Your task to perform on an android device: Search for the best rated headphones on amazon.com Image 0: 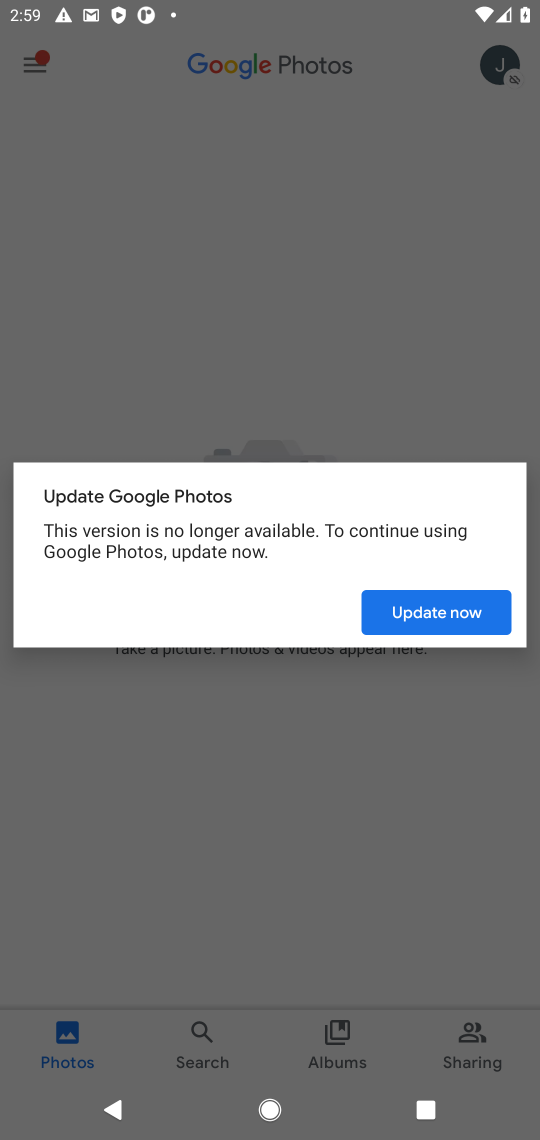
Step 0: press home button
Your task to perform on an android device: Search for the best rated headphones on amazon.com Image 1: 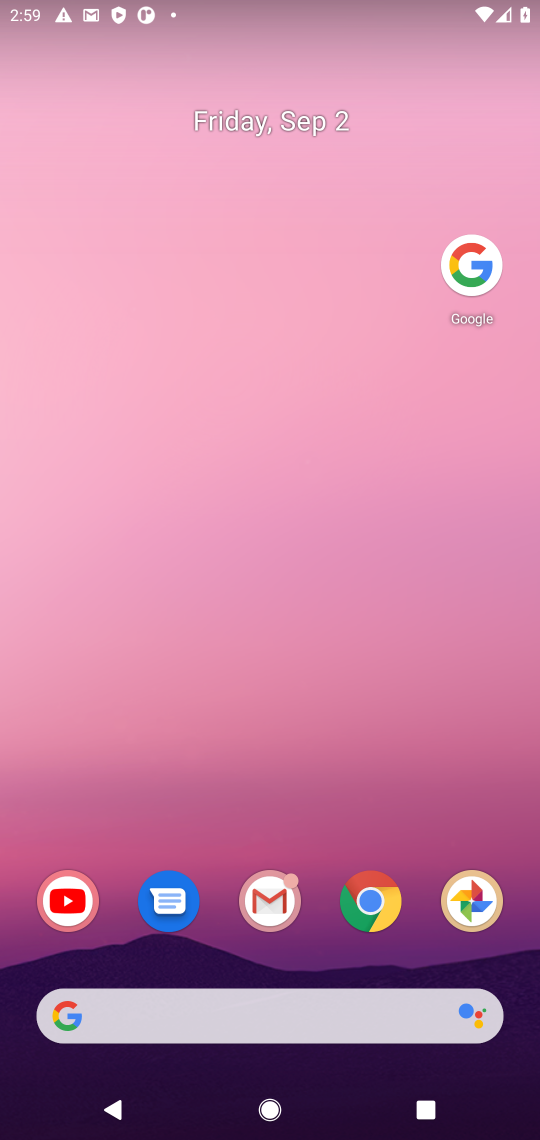
Step 1: drag from (249, 492) to (265, 194)
Your task to perform on an android device: Search for the best rated headphones on amazon.com Image 2: 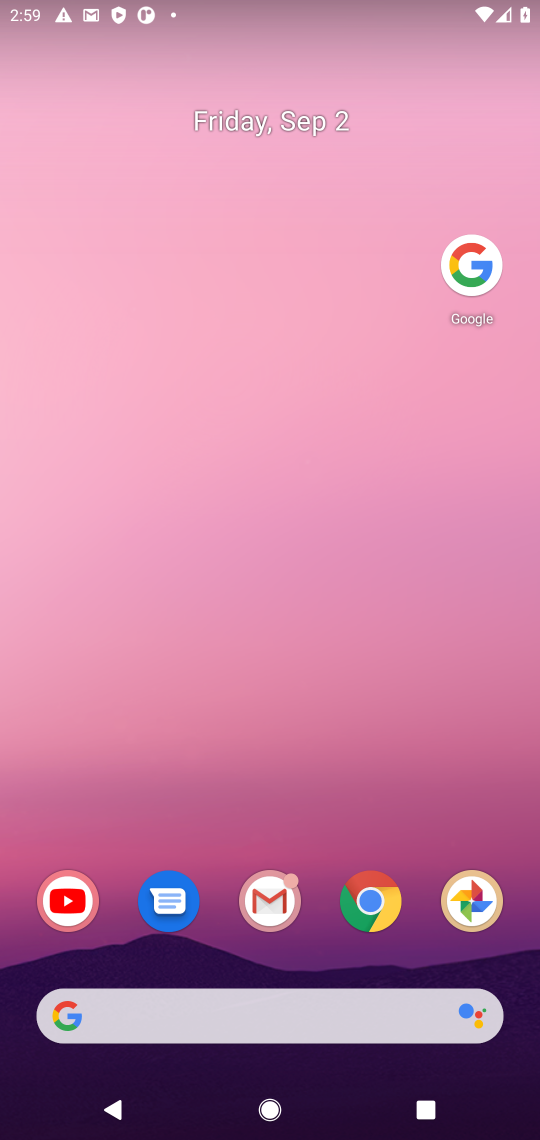
Step 2: drag from (204, 852) to (290, 181)
Your task to perform on an android device: Search for the best rated headphones on amazon.com Image 3: 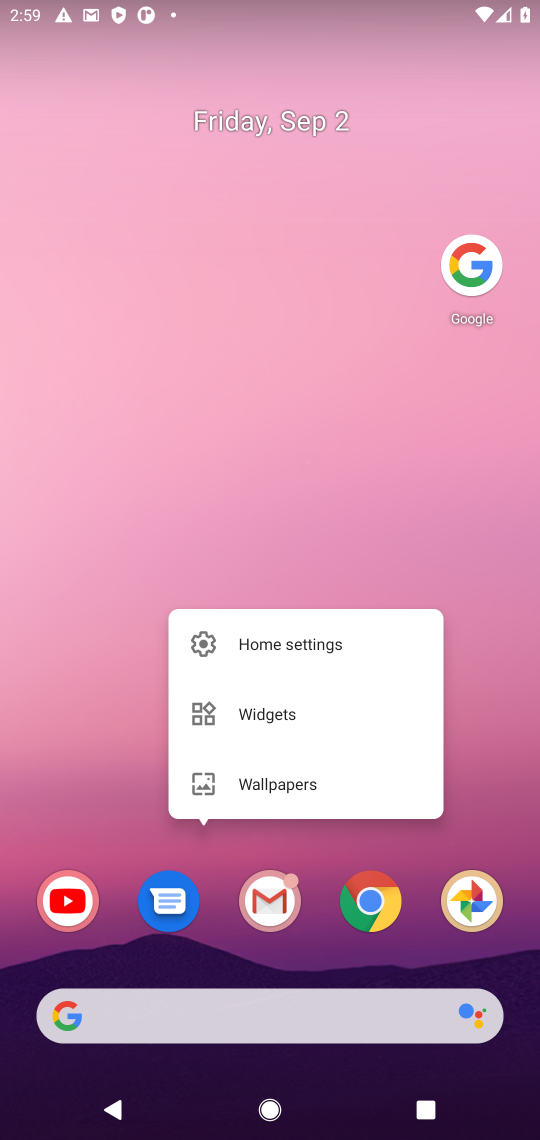
Step 3: click (454, 261)
Your task to perform on an android device: Search for the best rated headphones on amazon.com Image 4: 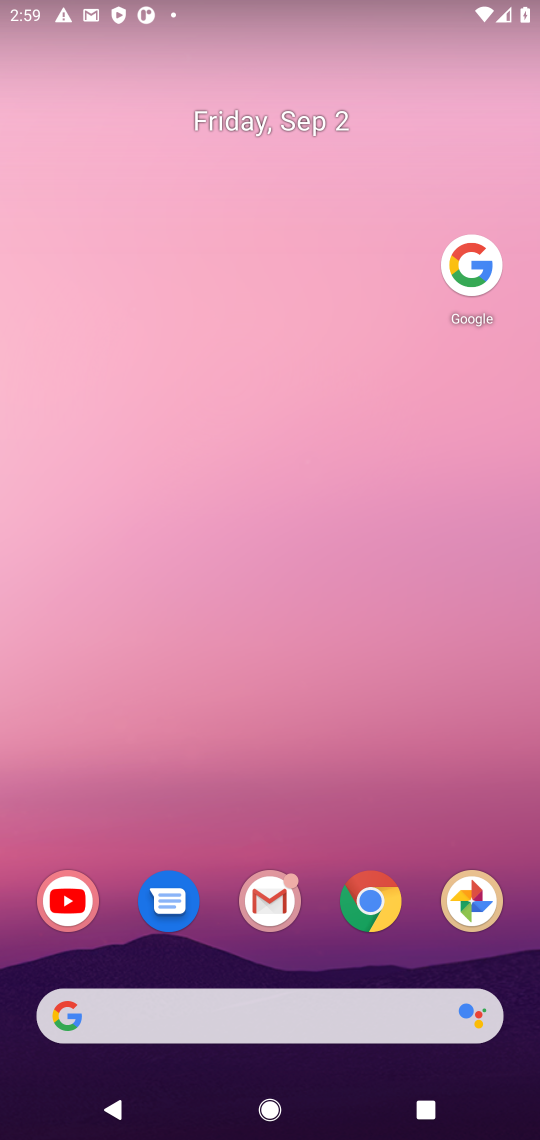
Step 4: click (473, 273)
Your task to perform on an android device: Search for the best rated headphones on amazon.com Image 5: 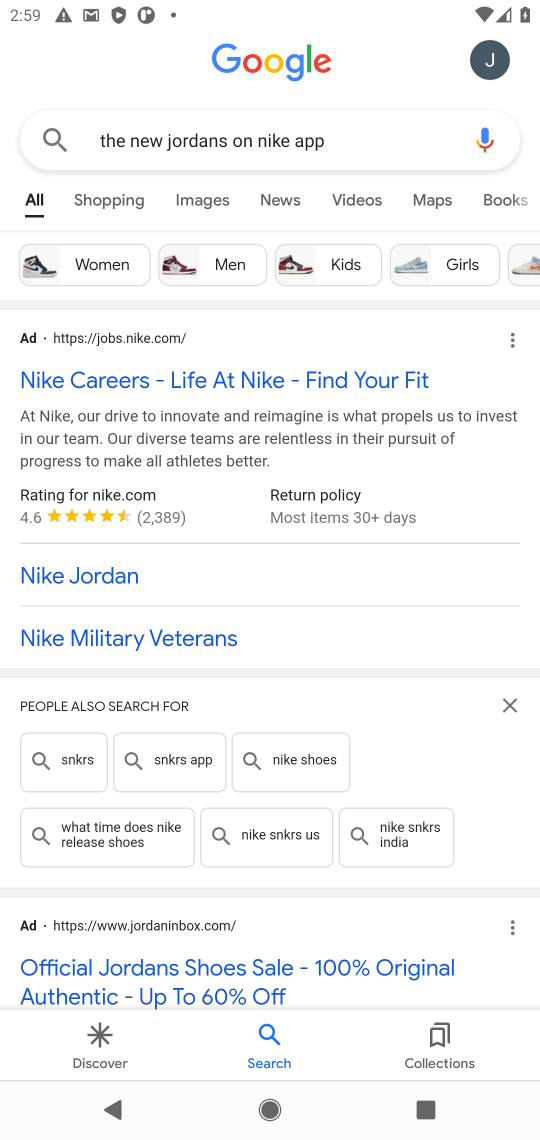
Step 5: click (327, 136)
Your task to perform on an android device: Search for the best rated headphones on amazon.com Image 6: 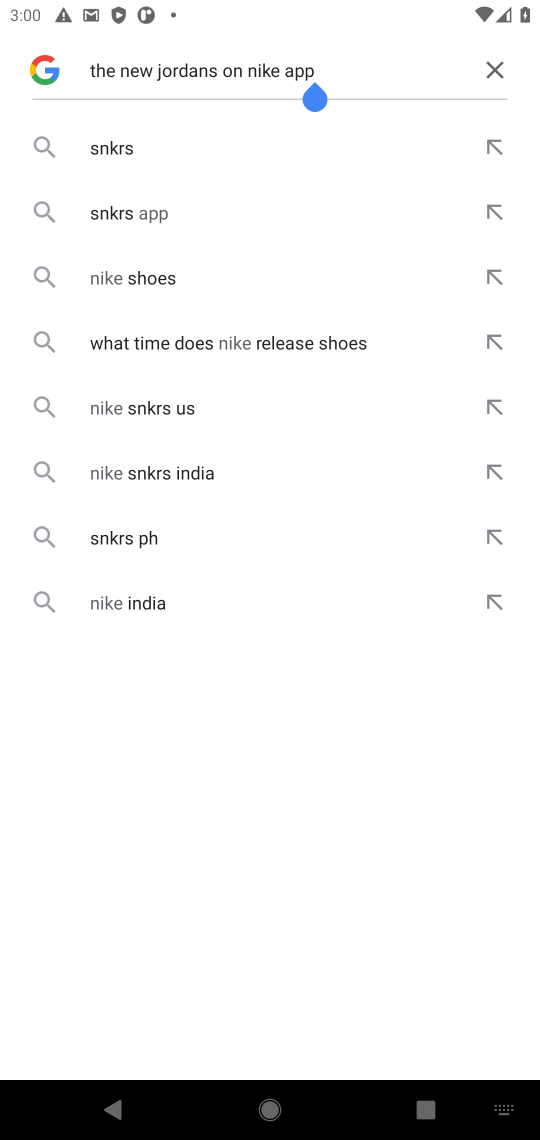
Step 6: click (489, 65)
Your task to perform on an android device: Search for the best rated headphones on amazon.com Image 7: 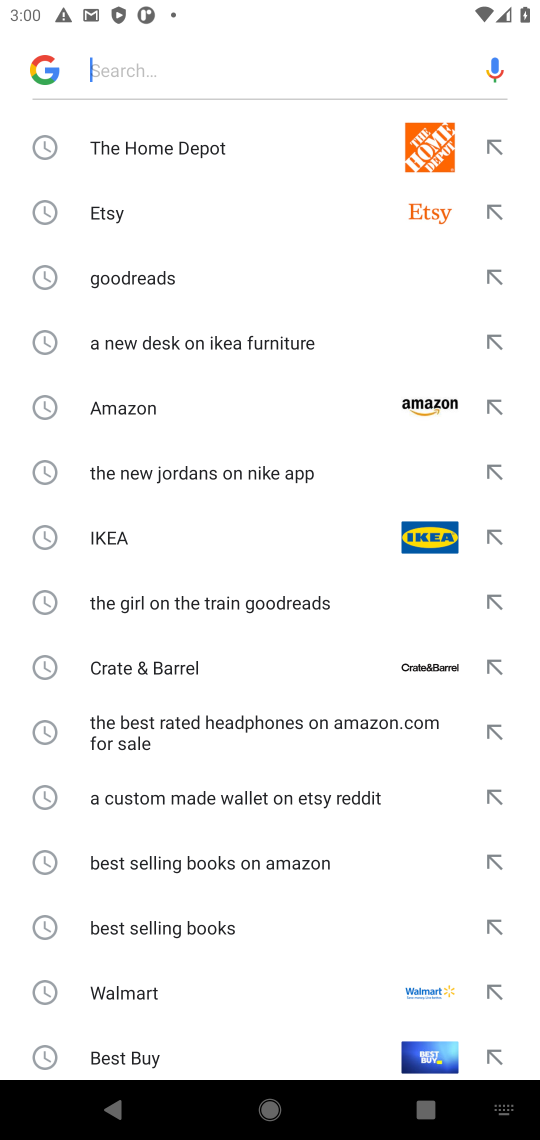
Step 7: click (175, 59)
Your task to perform on an android device: Search for the best rated headphones on amazon.com Image 8: 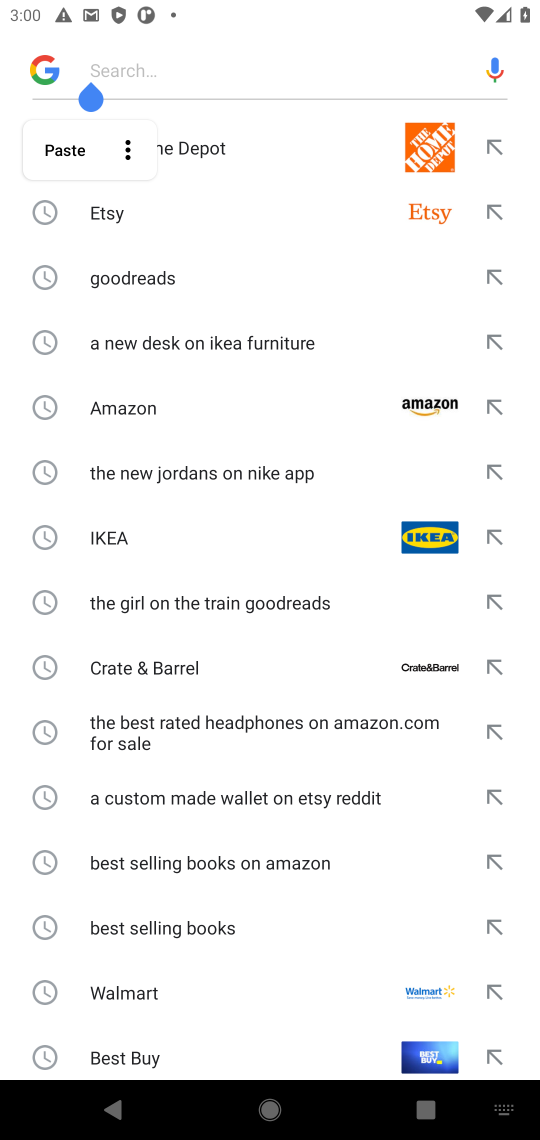
Step 8: type "the best rated headphones on amazon.com "
Your task to perform on an android device: Search for the best rated headphones on amazon.com Image 9: 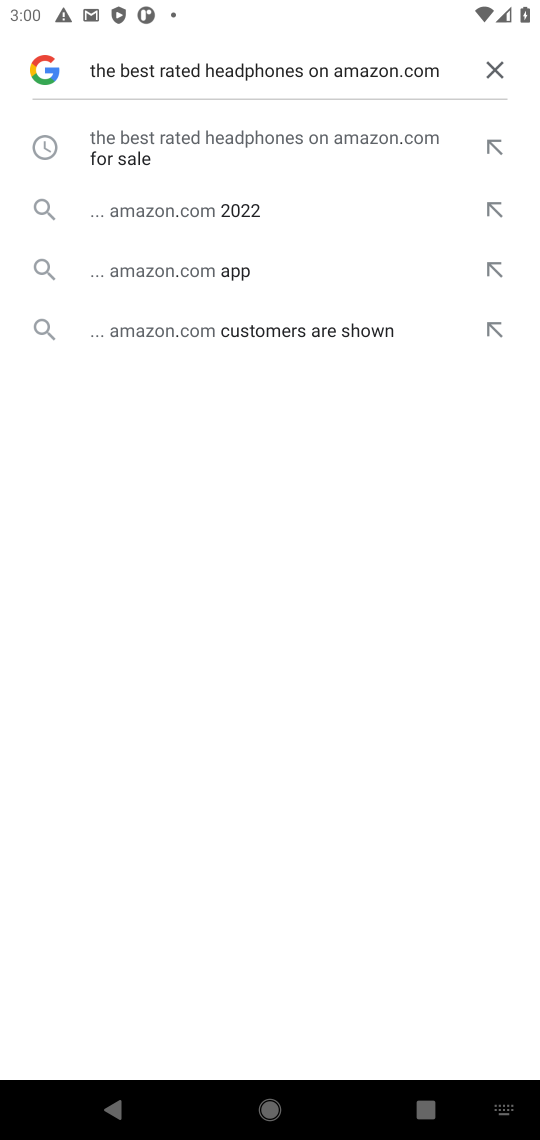
Step 9: click (263, 130)
Your task to perform on an android device: Search for the best rated headphones on amazon.com Image 10: 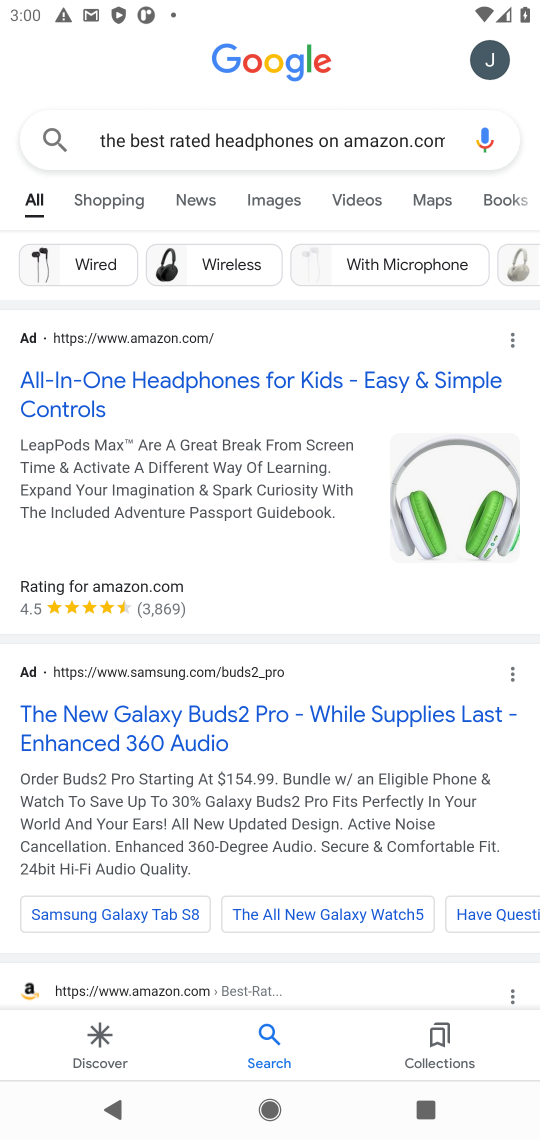
Step 10: drag from (227, 498) to (302, 233)
Your task to perform on an android device: Search for the best rated headphones on amazon.com Image 11: 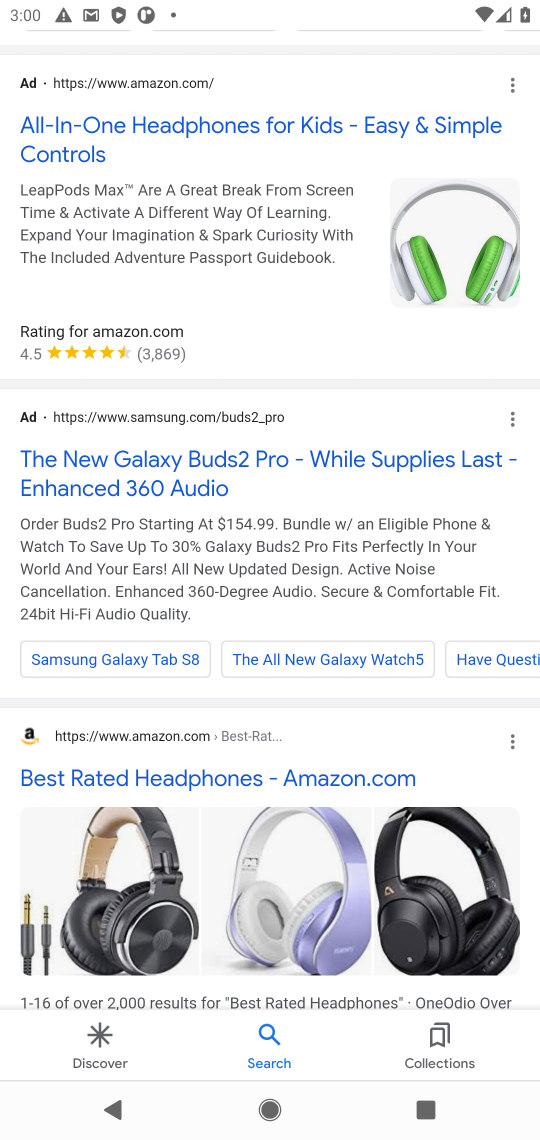
Step 11: click (232, 770)
Your task to perform on an android device: Search for the best rated headphones on amazon.com Image 12: 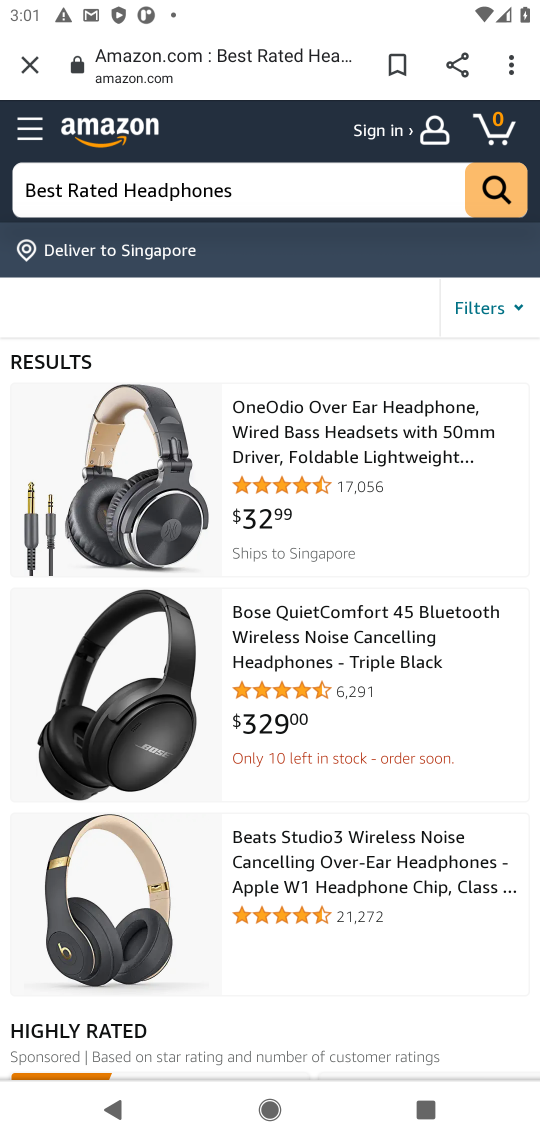
Step 12: task complete